Your task to perform on an android device: Go to CNN.com Image 0: 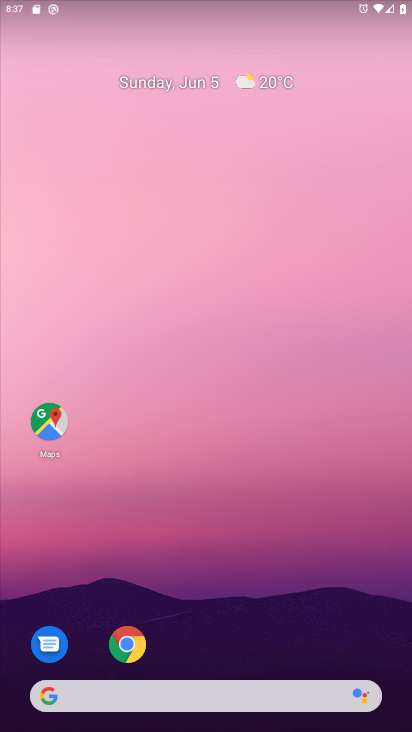
Step 0: drag from (183, 584) to (185, 212)
Your task to perform on an android device: Go to CNN.com Image 1: 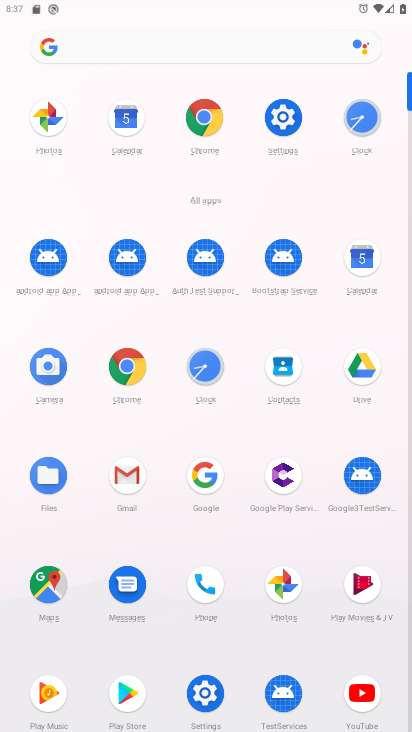
Step 1: click (115, 379)
Your task to perform on an android device: Go to CNN.com Image 2: 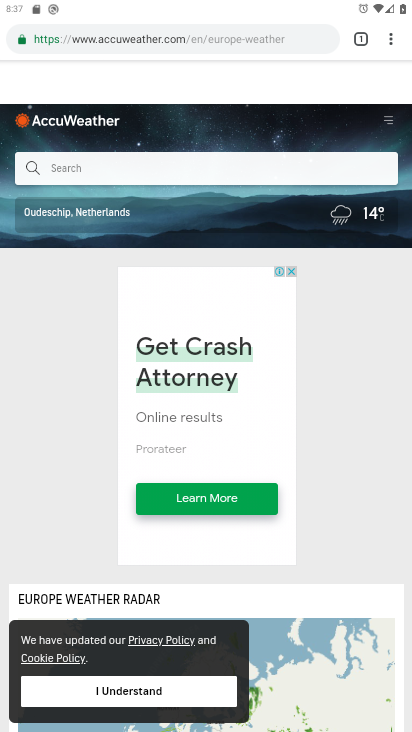
Step 2: click (228, 34)
Your task to perform on an android device: Go to CNN.com Image 3: 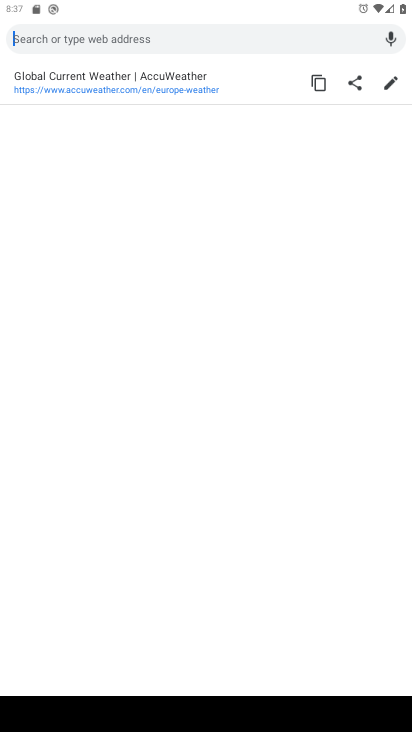
Step 3: type "cnn.com"
Your task to perform on an android device: Go to CNN.com Image 4: 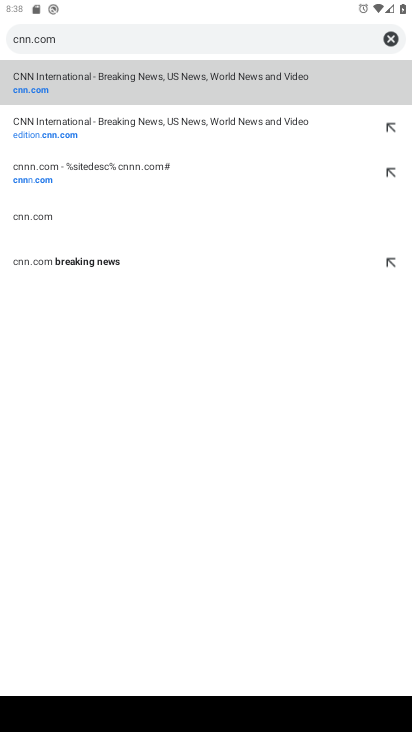
Step 4: click (141, 83)
Your task to perform on an android device: Go to CNN.com Image 5: 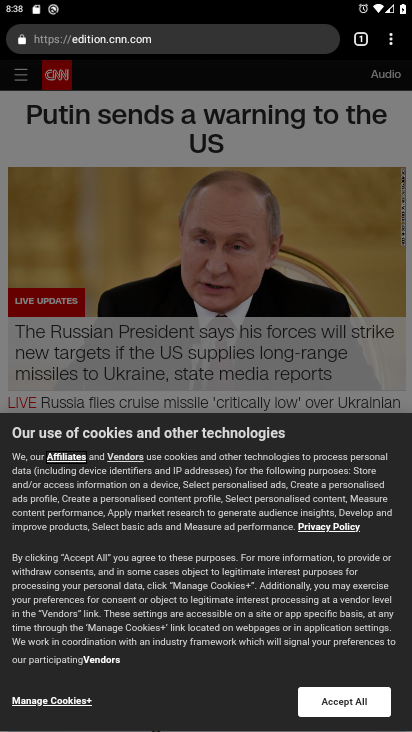
Step 5: task complete